Your task to perform on an android device: What's the weather? Image 0: 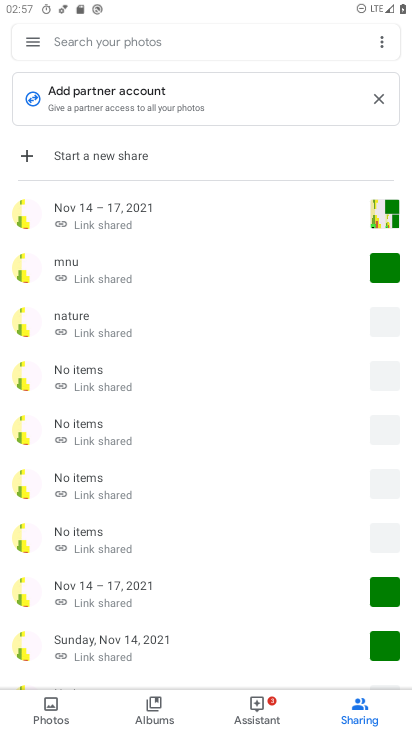
Step 0: press home button
Your task to perform on an android device: What's the weather? Image 1: 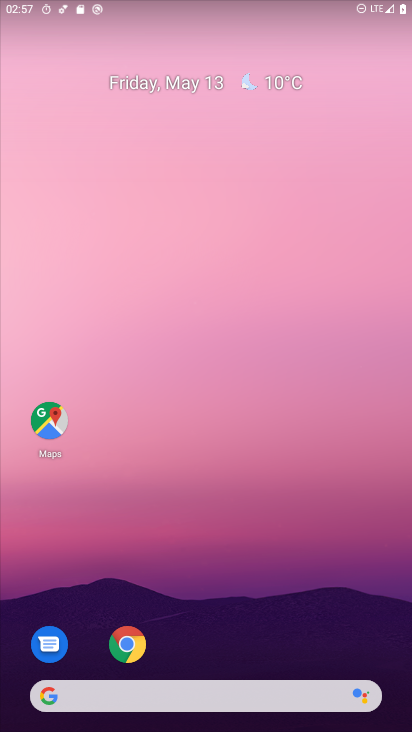
Step 1: drag from (255, 664) to (361, 13)
Your task to perform on an android device: What's the weather? Image 2: 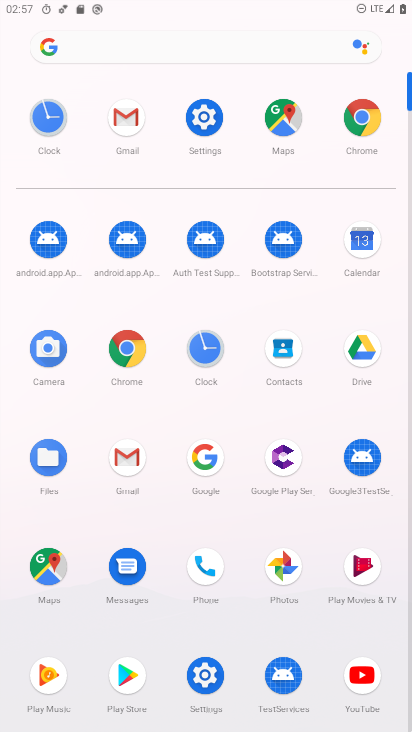
Step 2: click (132, 351)
Your task to perform on an android device: What's the weather? Image 3: 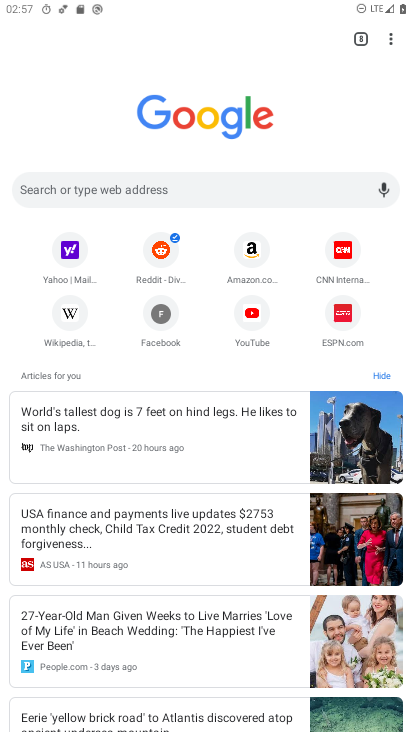
Step 3: click (128, 192)
Your task to perform on an android device: What's the weather? Image 4: 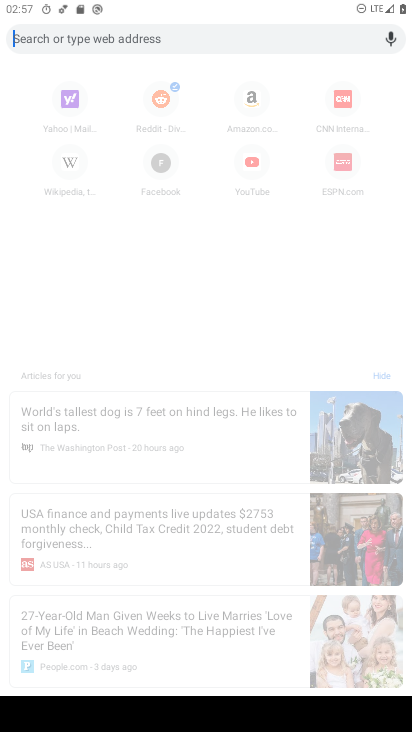
Step 4: type "what the weather"
Your task to perform on an android device: What's the weather? Image 5: 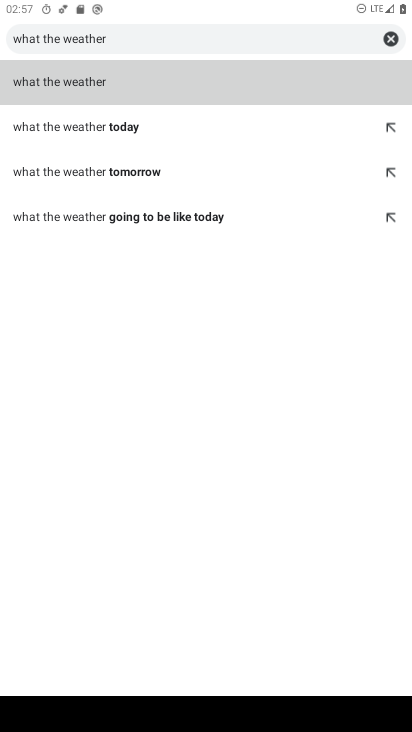
Step 5: click (152, 84)
Your task to perform on an android device: What's the weather? Image 6: 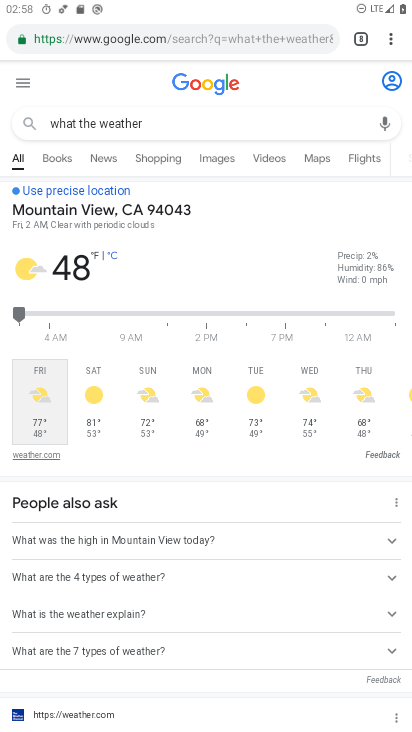
Step 6: task complete